Your task to perform on an android device: Go to display settings Image 0: 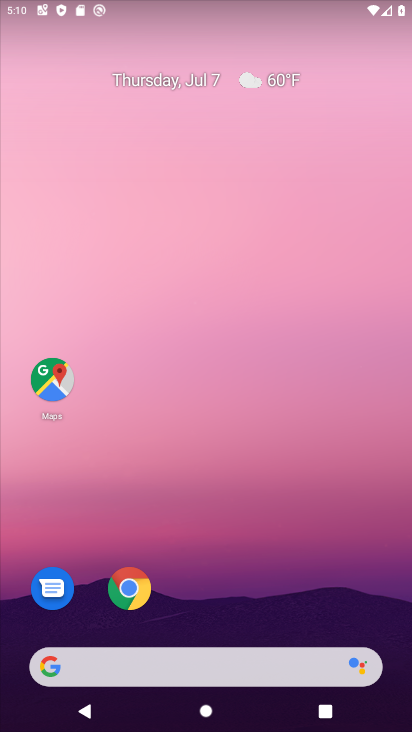
Step 0: drag from (180, 540) to (200, 86)
Your task to perform on an android device: Go to display settings Image 1: 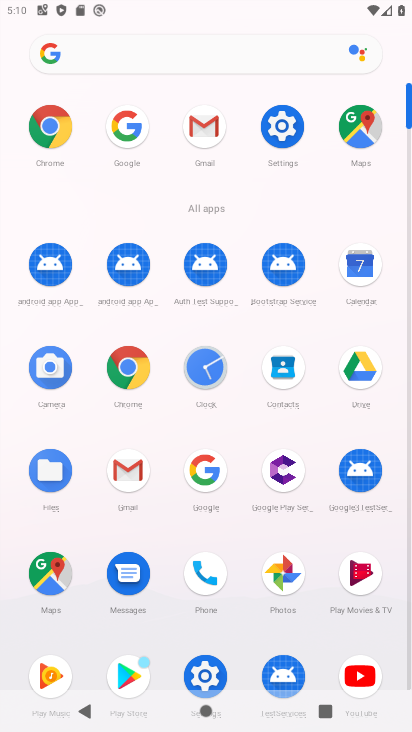
Step 1: click (277, 114)
Your task to perform on an android device: Go to display settings Image 2: 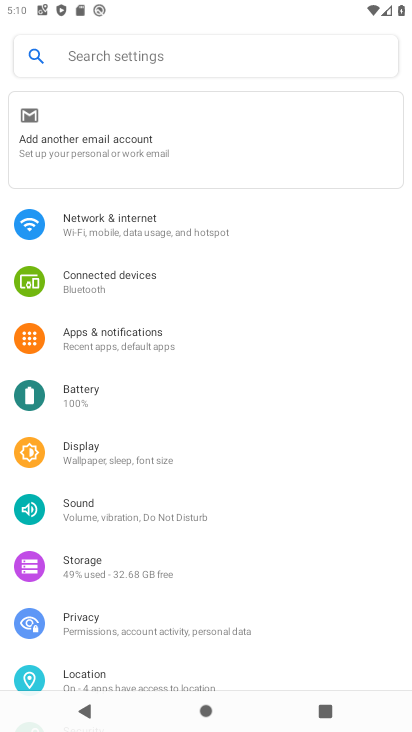
Step 2: click (88, 445)
Your task to perform on an android device: Go to display settings Image 3: 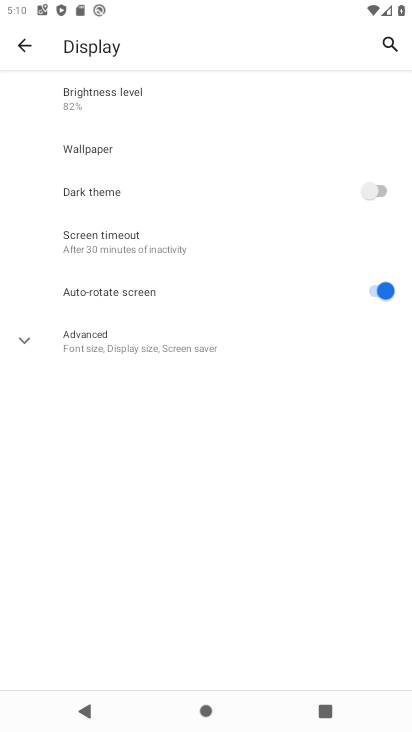
Step 3: task complete